Your task to perform on an android device: What's the weather? Image 0: 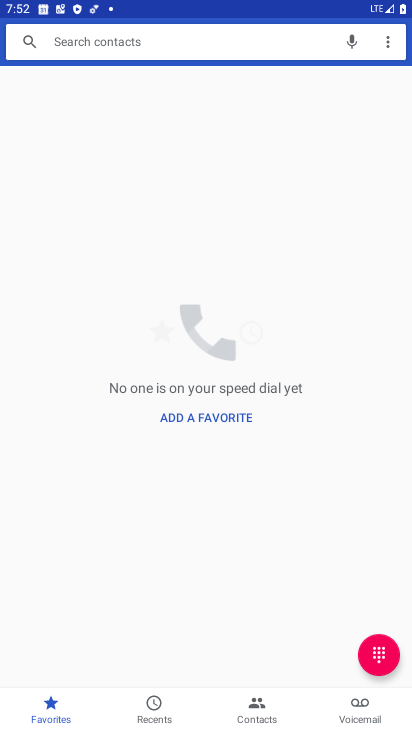
Step 0: press back button
Your task to perform on an android device: What's the weather? Image 1: 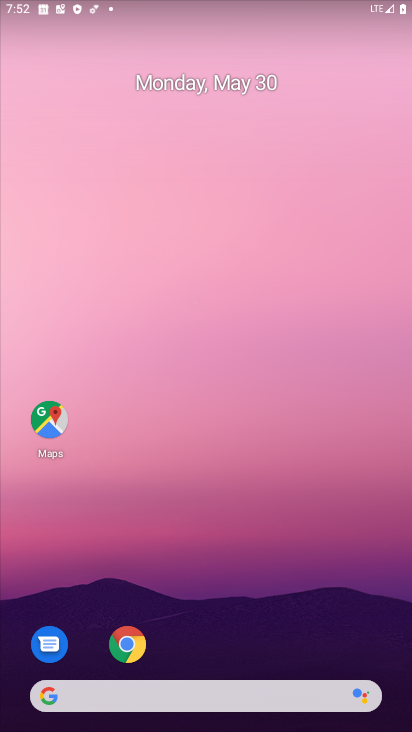
Step 1: drag from (249, 604) to (217, 165)
Your task to perform on an android device: What's the weather? Image 2: 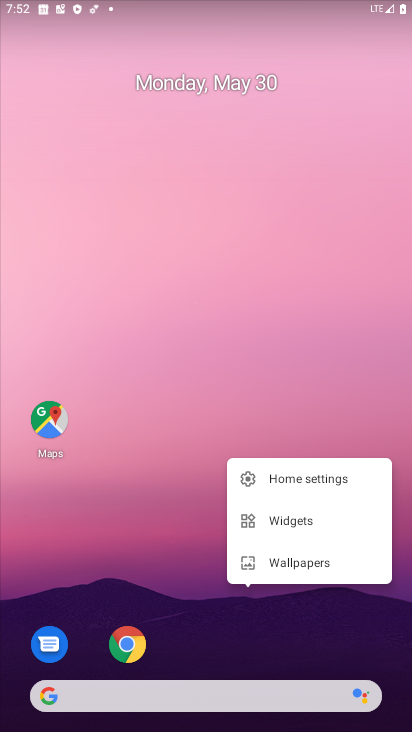
Step 2: drag from (196, 626) to (160, 96)
Your task to perform on an android device: What's the weather? Image 3: 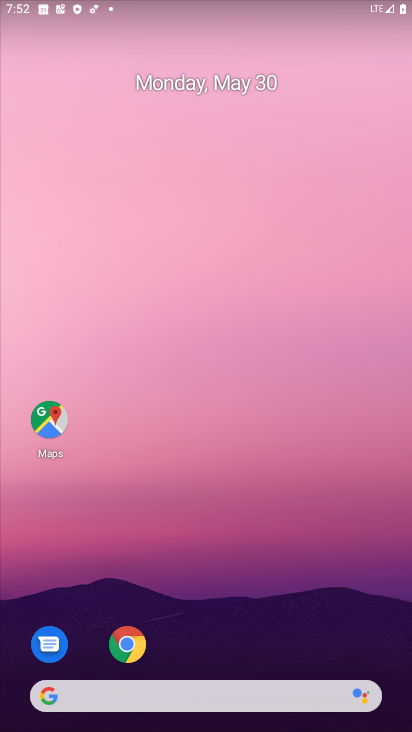
Step 3: drag from (322, 609) to (203, 29)
Your task to perform on an android device: What's the weather? Image 4: 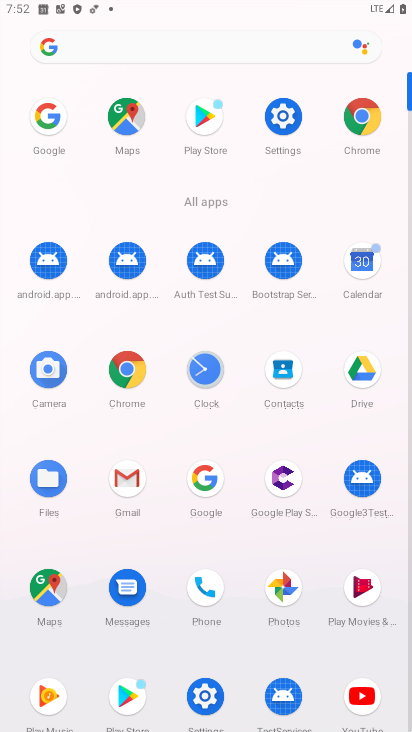
Step 4: click (45, 112)
Your task to perform on an android device: What's the weather? Image 5: 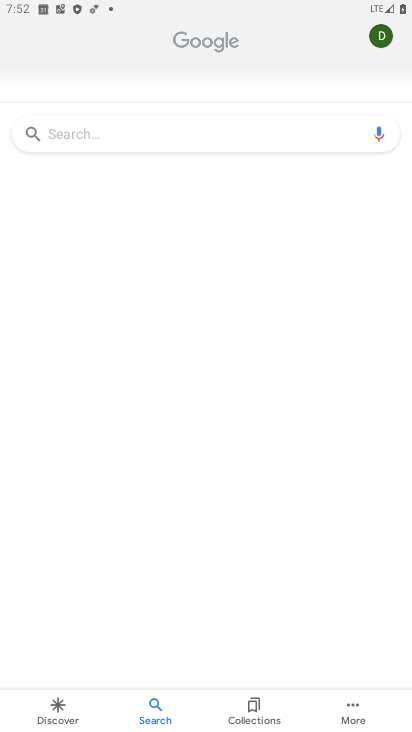
Step 5: click (100, 130)
Your task to perform on an android device: What's the weather? Image 6: 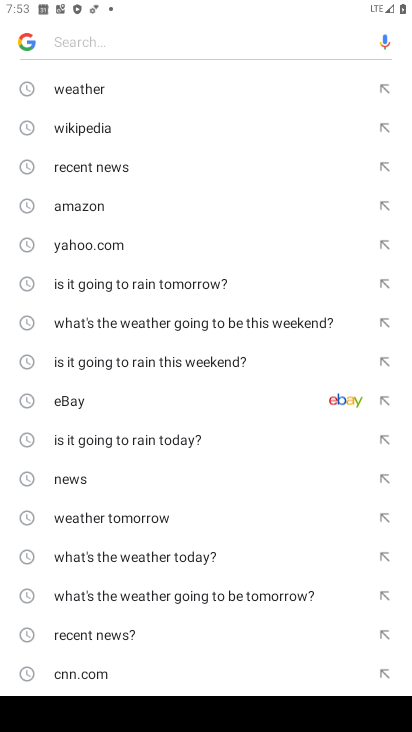
Step 6: click (86, 91)
Your task to perform on an android device: What's the weather? Image 7: 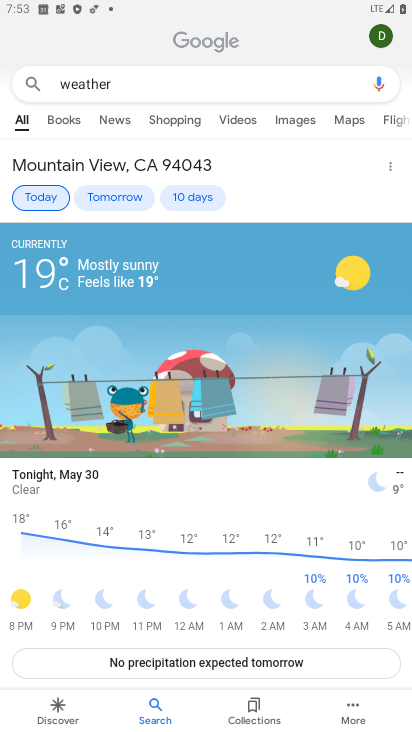
Step 7: task complete